Your task to perform on an android device: Search for the best vacuum on Amazon. Image 0: 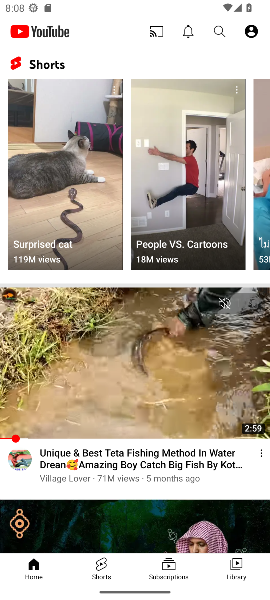
Step 0: press home button
Your task to perform on an android device: Search for the best vacuum on Amazon. Image 1: 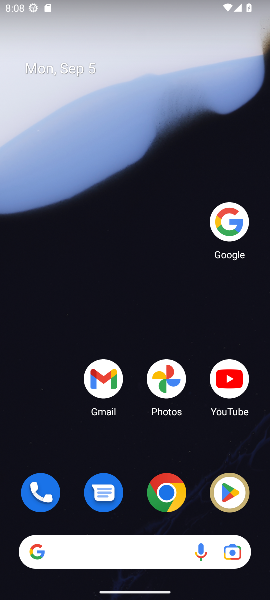
Step 1: click (229, 213)
Your task to perform on an android device: Search for the best vacuum on Amazon. Image 2: 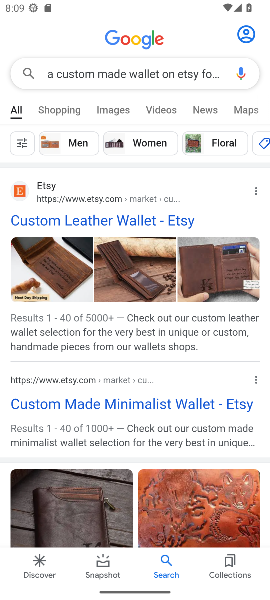
Step 2: task complete